Your task to perform on an android device: Open Android settings Image 0: 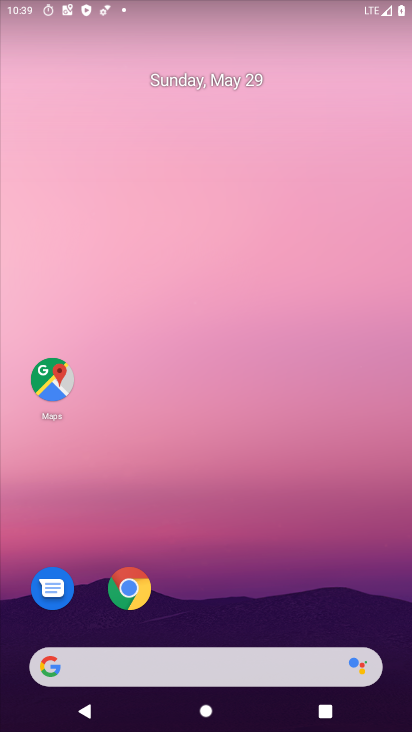
Step 0: drag from (224, 494) to (252, 115)
Your task to perform on an android device: Open Android settings Image 1: 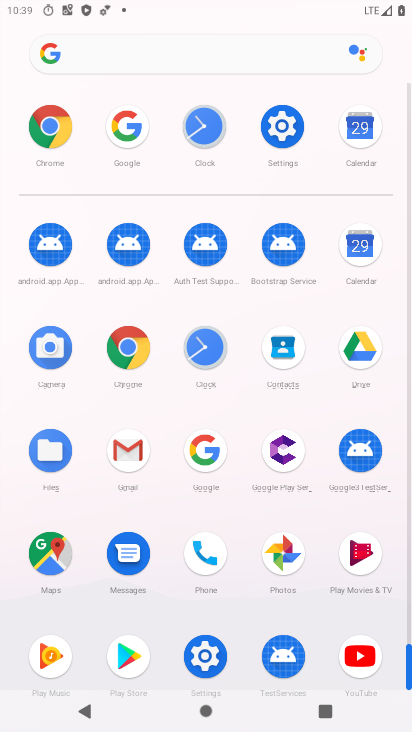
Step 1: click (284, 141)
Your task to perform on an android device: Open Android settings Image 2: 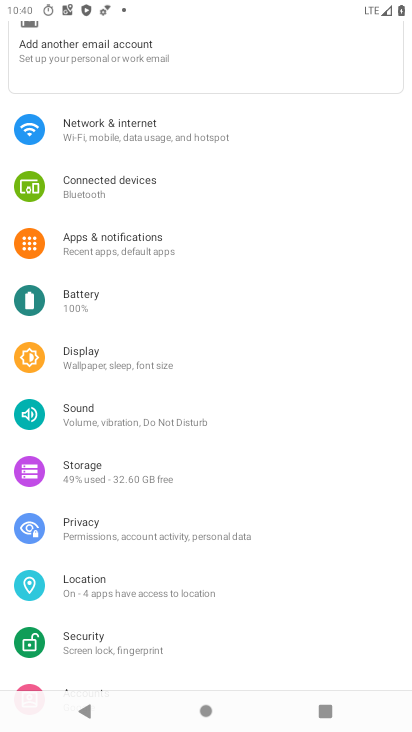
Step 2: task complete